Your task to perform on an android device: open app "Cash App" (install if not already installed) and go to login screen Image 0: 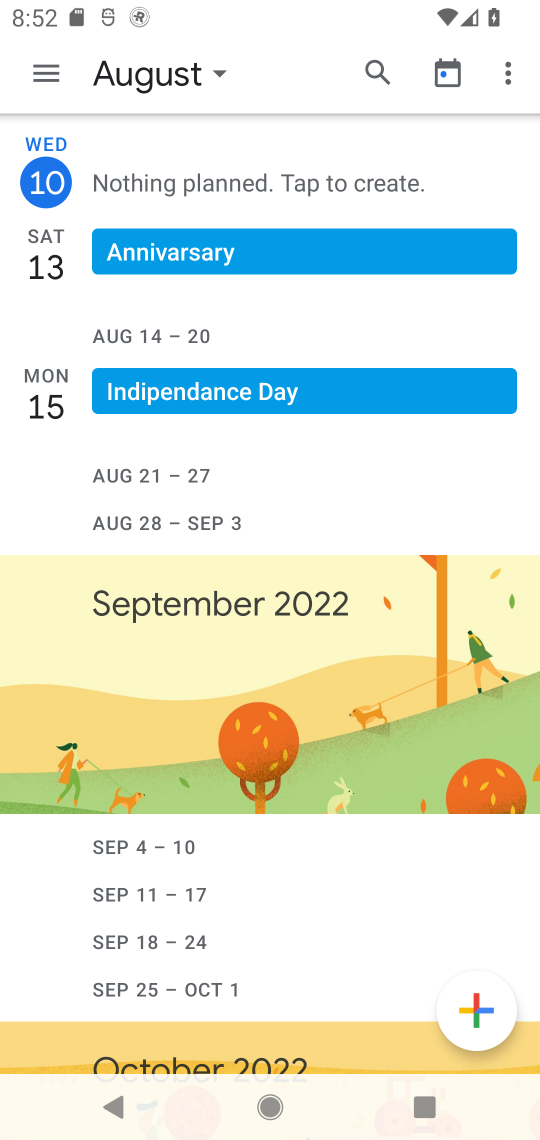
Step 0: press home button
Your task to perform on an android device: open app "Cash App" (install if not already installed) and go to login screen Image 1: 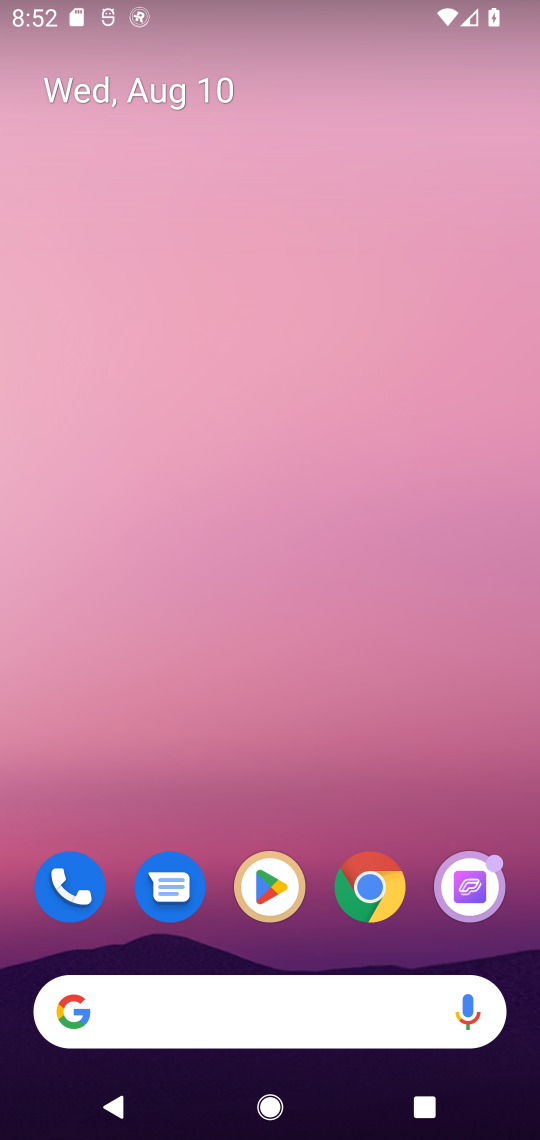
Step 1: click (239, 896)
Your task to perform on an android device: open app "Cash App" (install if not already installed) and go to login screen Image 2: 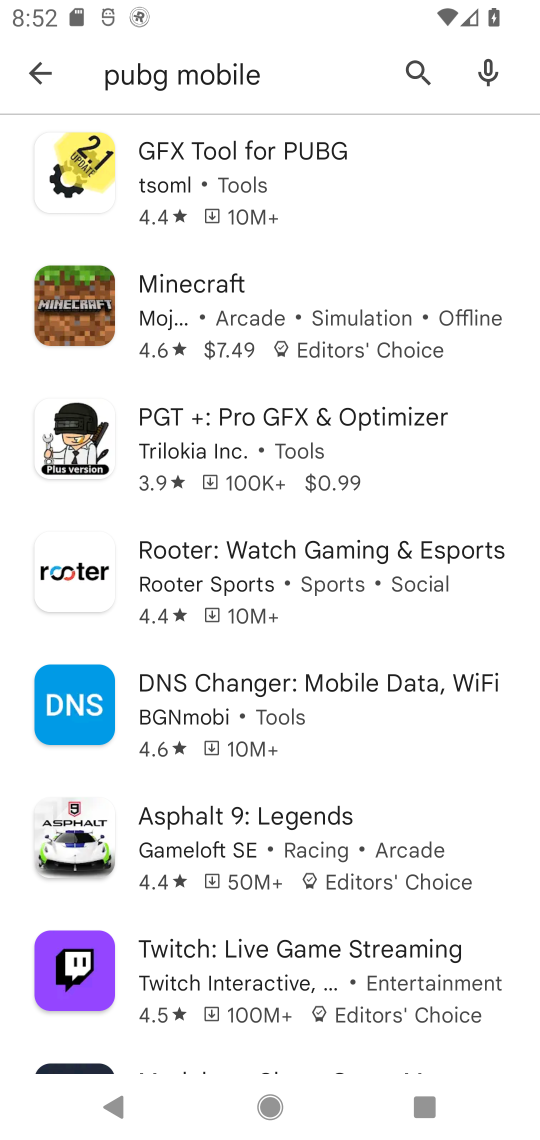
Step 2: click (416, 82)
Your task to perform on an android device: open app "Cash App" (install if not already installed) and go to login screen Image 3: 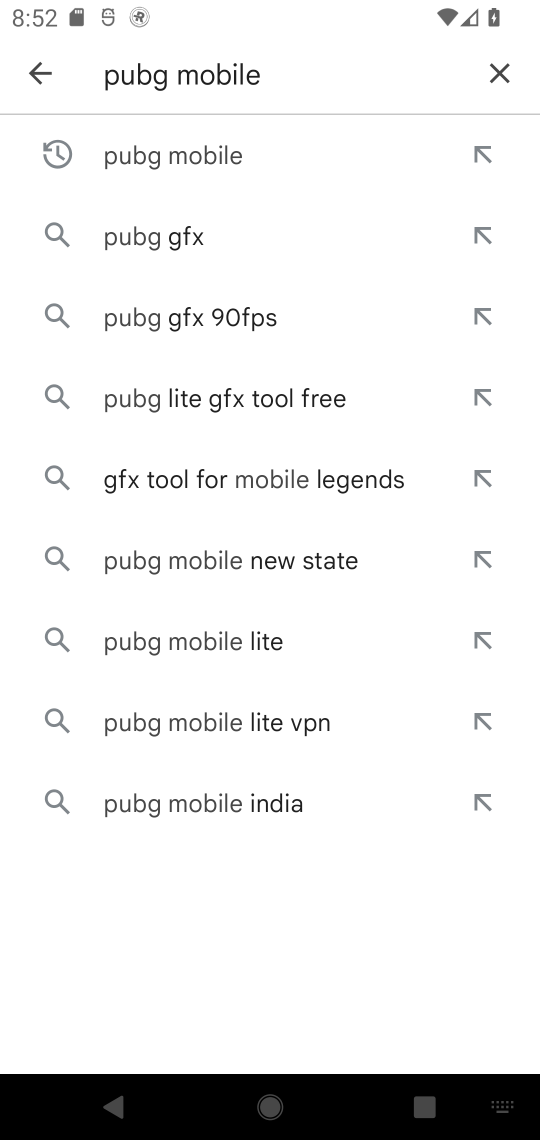
Step 3: click (485, 82)
Your task to perform on an android device: open app "Cash App" (install if not already installed) and go to login screen Image 4: 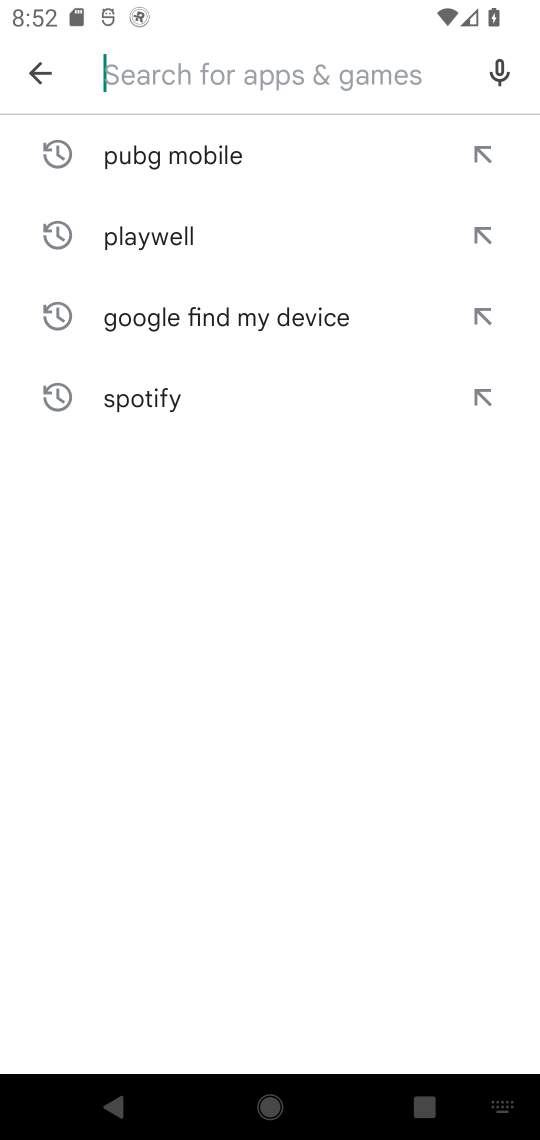
Step 4: type "cash app"
Your task to perform on an android device: open app "Cash App" (install if not already installed) and go to login screen Image 5: 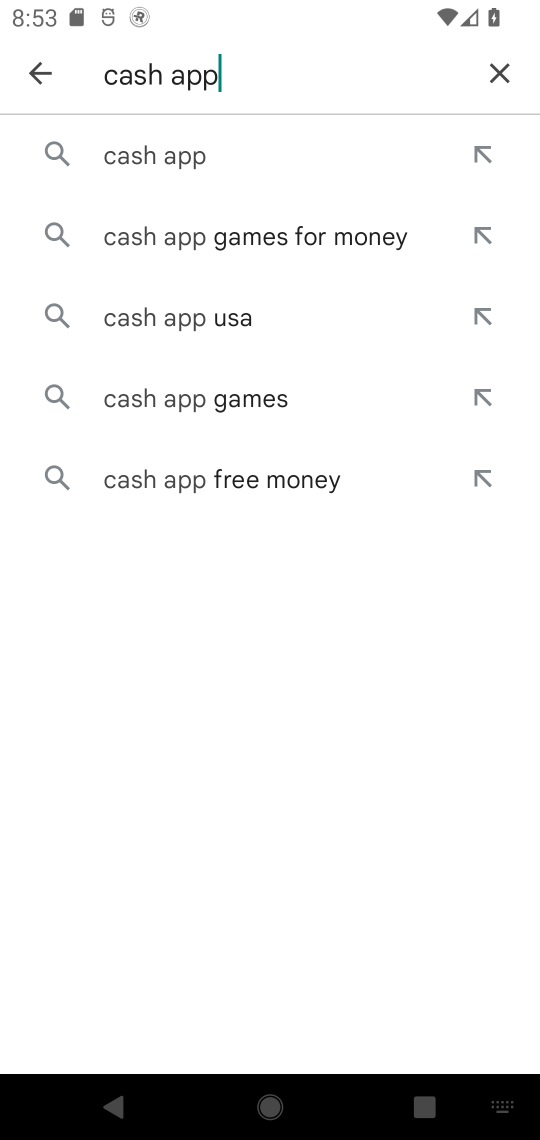
Step 5: click (114, 158)
Your task to perform on an android device: open app "Cash App" (install if not already installed) and go to login screen Image 6: 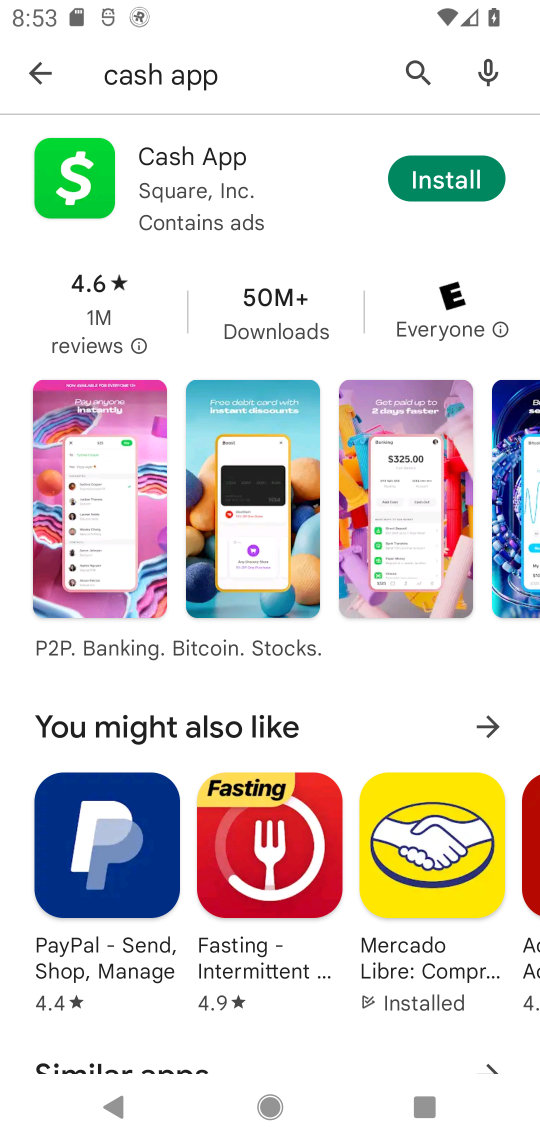
Step 6: click (414, 171)
Your task to perform on an android device: open app "Cash App" (install if not already installed) and go to login screen Image 7: 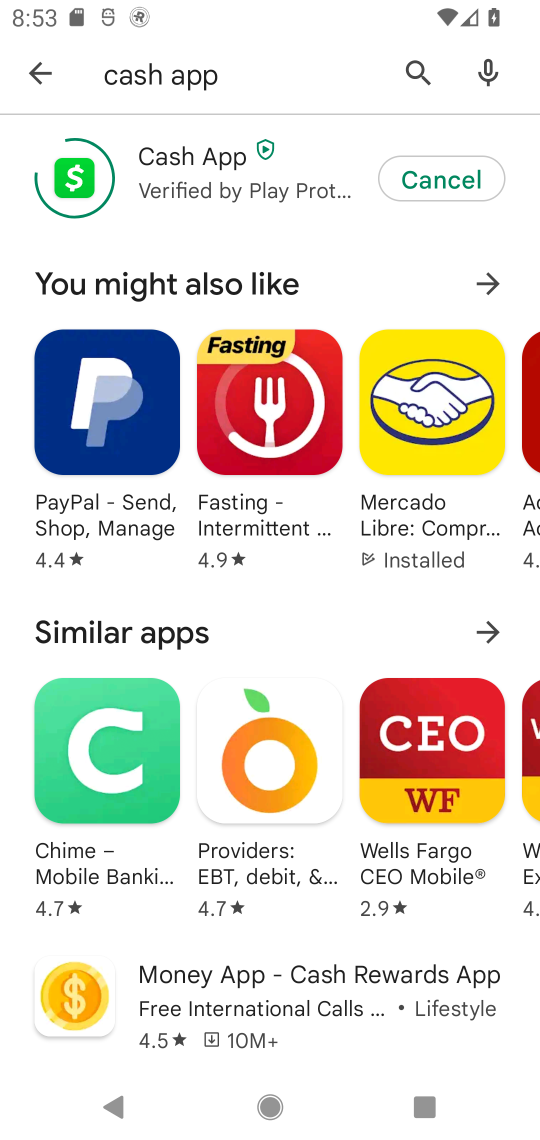
Step 7: task complete